Your task to perform on an android device: What's on my calendar today? Image 0: 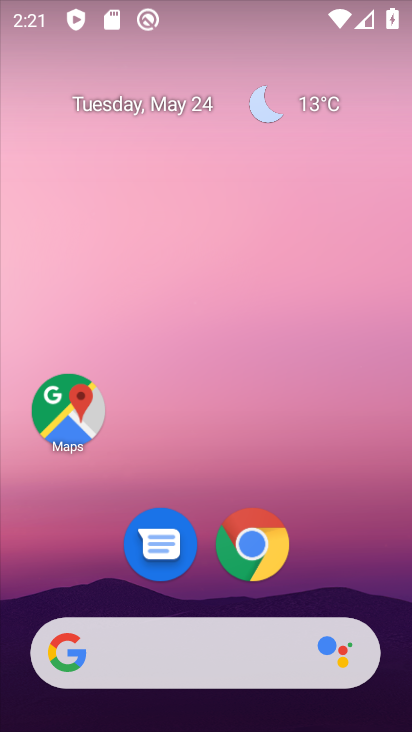
Step 0: drag from (348, 532) to (388, 118)
Your task to perform on an android device: What's on my calendar today? Image 1: 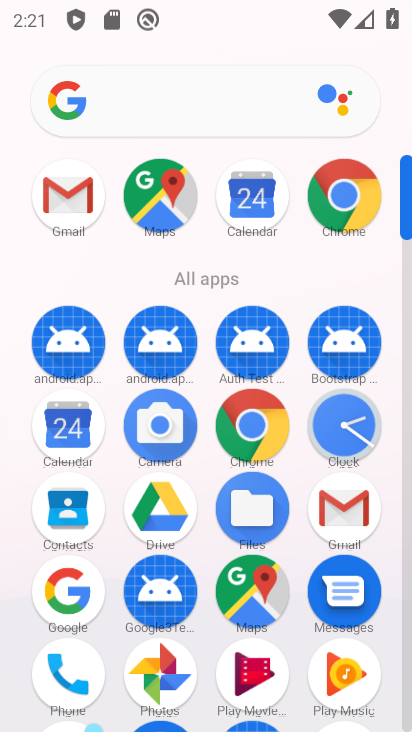
Step 1: click (46, 436)
Your task to perform on an android device: What's on my calendar today? Image 2: 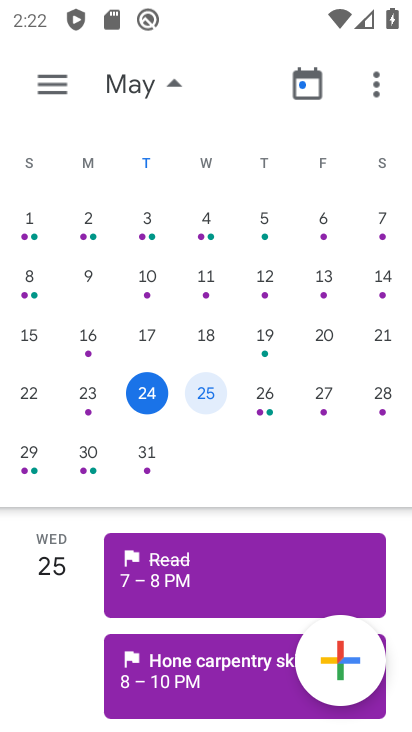
Step 2: task complete